Your task to perform on an android device: turn notification dots off Image 0: 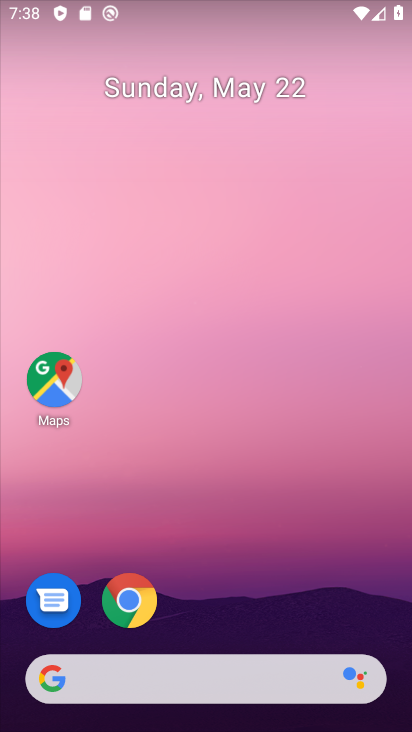
Step 0: drag from (205, 658) to (246, 289)
Your task to perform on an android device: turn notification dots off Image 1: 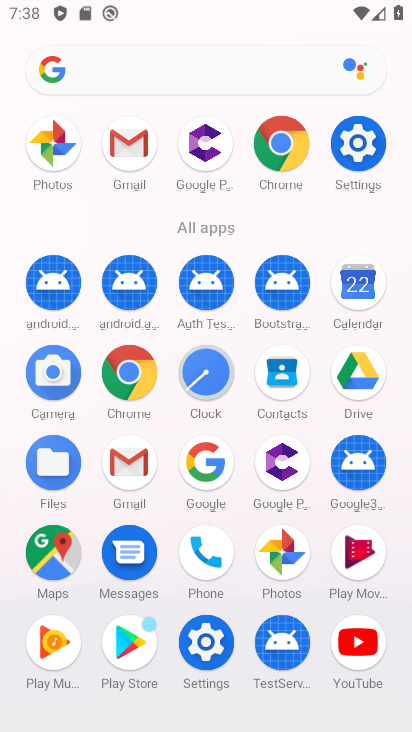
Step 1: click (360, 155)
Your task to perform on an android device: turn notification dots off Image 2: 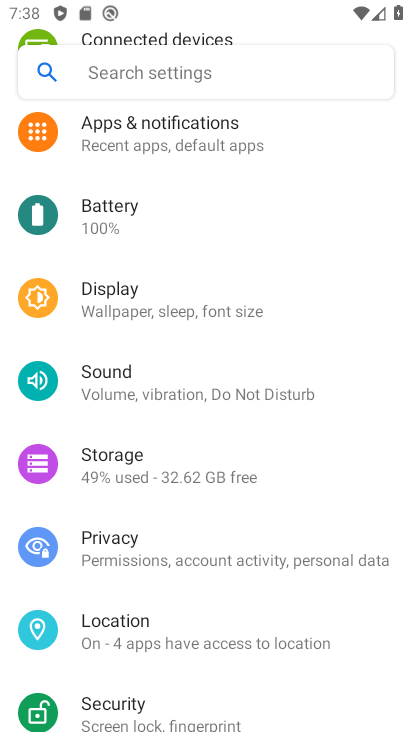
Step 2: drag from (234, 151) to (245, 507)
Your task to perform on an android device: turn notification dots off Image 3: 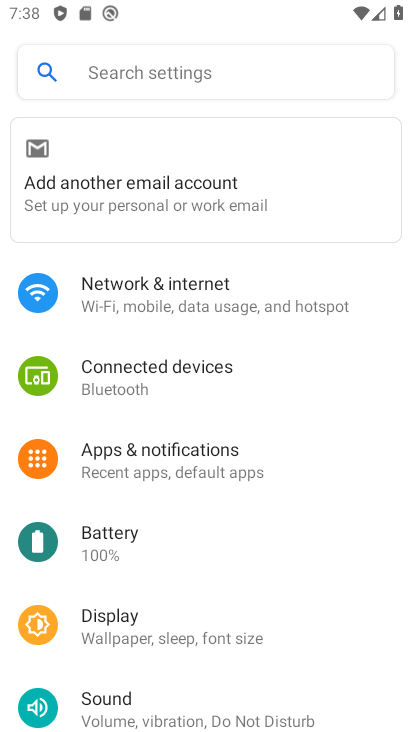
Step 3: click (153, 465)
Your task to perform on an android device: turn notification dots off Image 4: 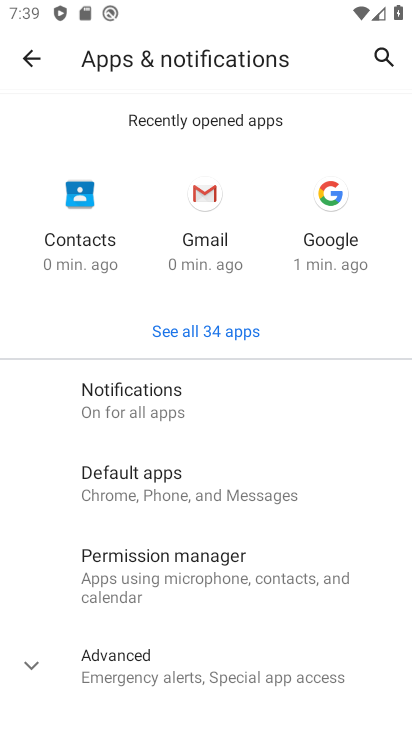
Step 4: click (173, 660)
Your task to perform on an android device: turn notification dots off Image 5: 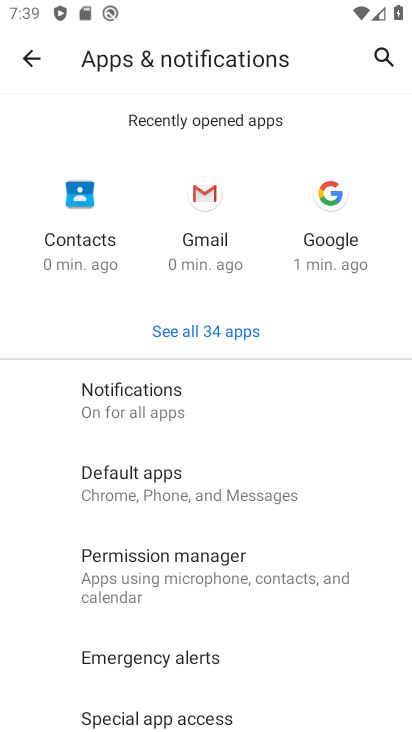
Step 5: drag from (179, 711) to (172, 392)
Your task to perform on an android device: turn notification dots off Image 6: 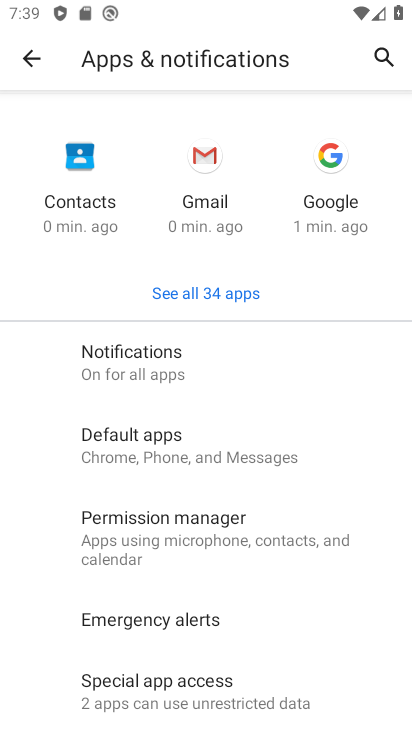
Step 6: click (143, 364)
Your task to perform on an android device: turn notification dots off Image 7: 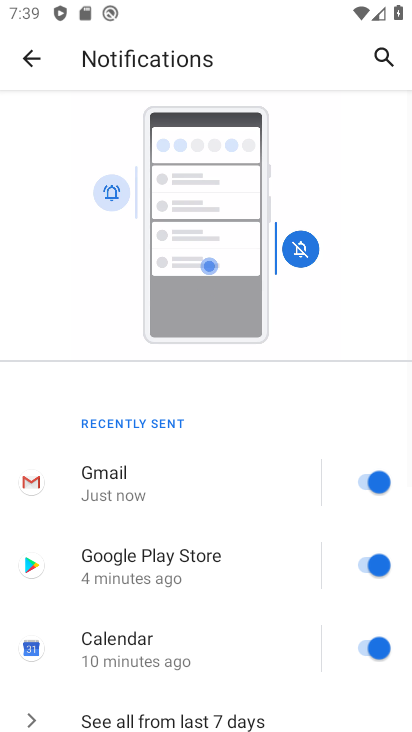
Step 7: drag from (161, 716) to (235, 374)
Your task to perform on an android device: turn notification dots off Image 8: 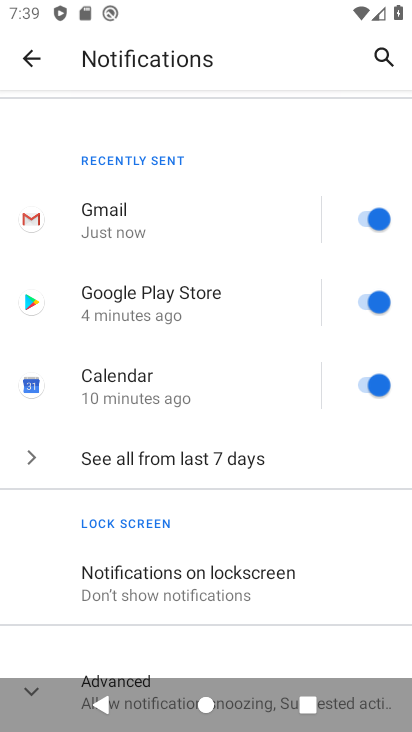
Step 8: drag from (185, 651) to (213, 391)
Your task to perform on an android device: turn notification dots off Image 9: 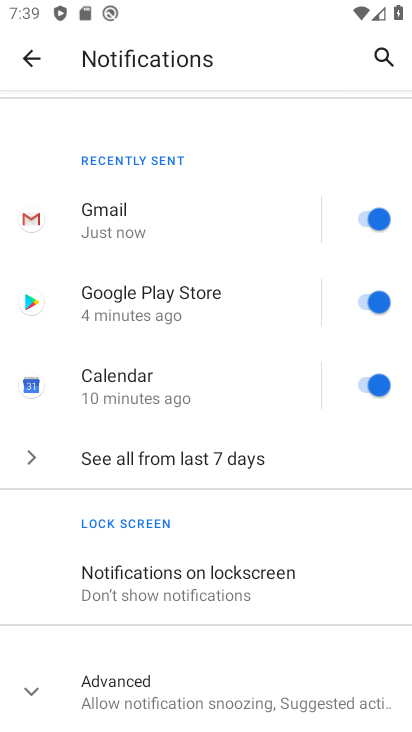
Step 9: click (151, 690)
Your task to perform on an android device: turn notification dots off Image 10: 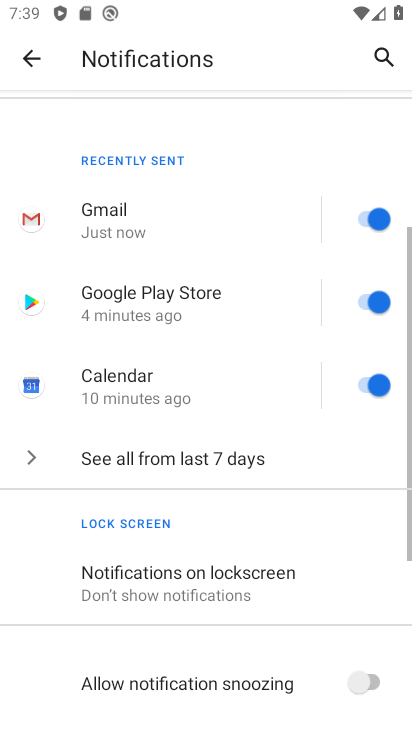
Step 10: drag from (217, 703) to (226, 500)
Your task to perform on an android device: turn notification dots off Image 11: 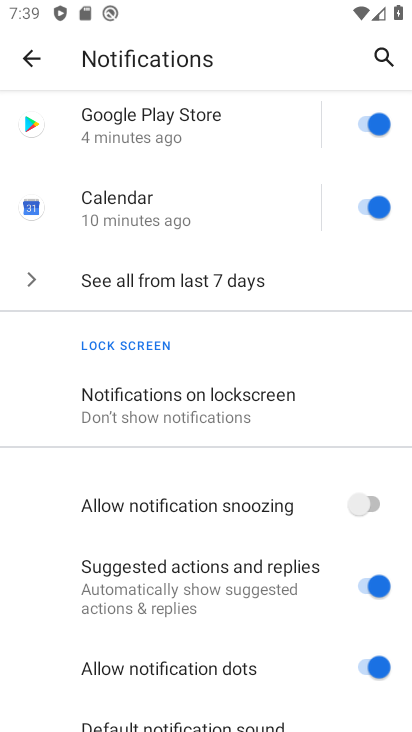
Step 11: click (366, 668)
Your task to perform on an android device: turn notification dots off Image 12: 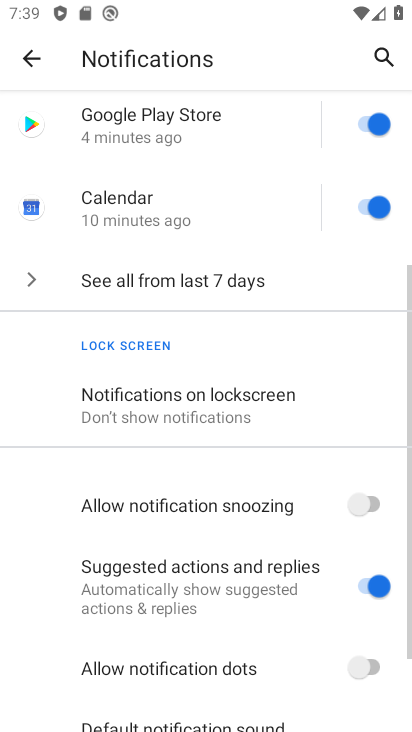
Step 12: task complete